Your task to perform on an android device: Open ESPN.com Image 0: 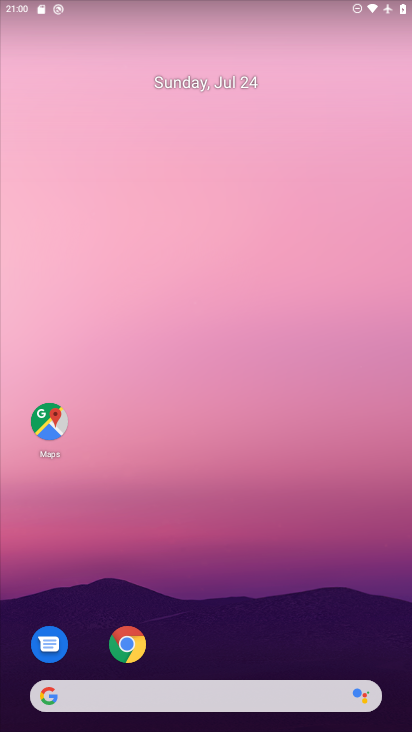
Step 0: click (124, 642)
Your task to perform on an android device: Open ESPN.com Image 1: 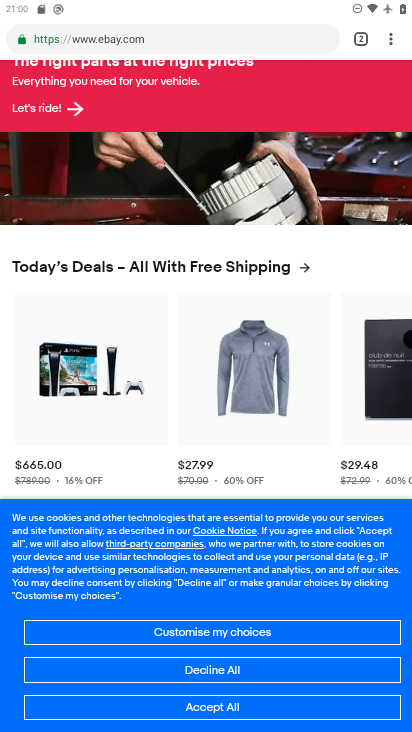
Step 1: click (176, 28)
Your task to perform on an android device: Open ESPN.com Image 2: 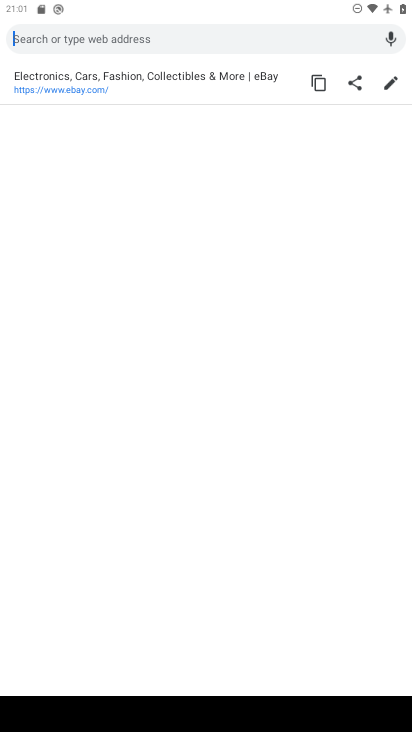
Step 2: type "ESPN.com"
Your task to perform on an android device: Open ESPN.com Image 3: 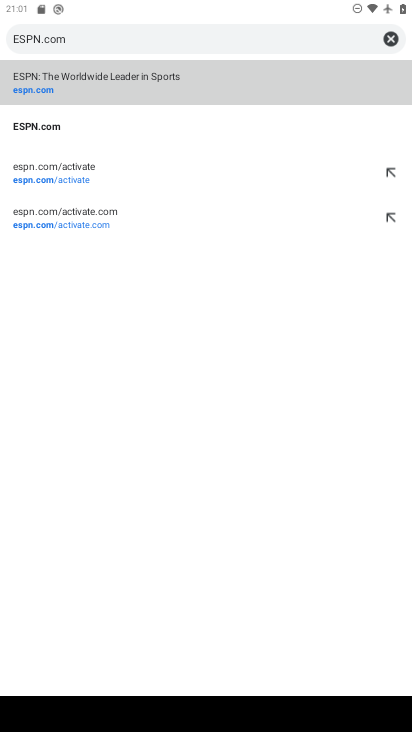
Step 3: click (49, 86)
Your task to perform on an android device: Open ESPN.com Image 4: 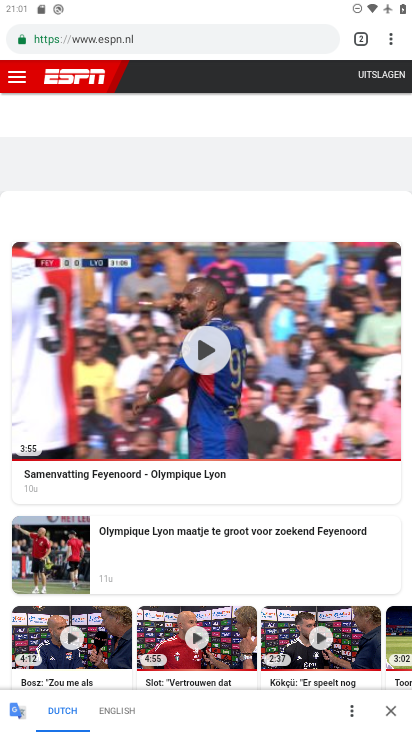
Step 4: drag from (257, 598) to (276, 154)
Your task to perform on an android device: Open ESPN.com Image 5: 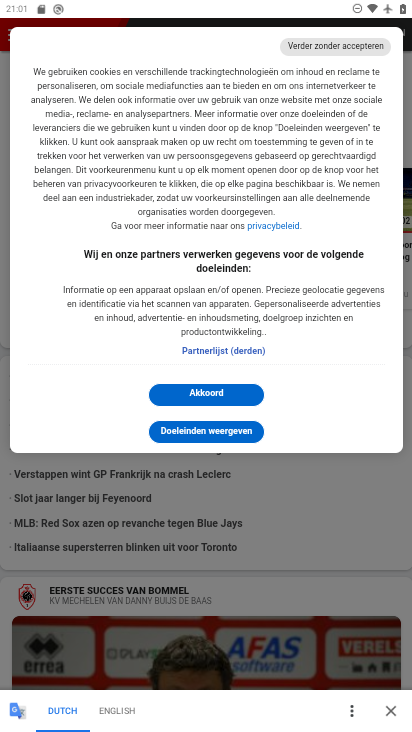
Step 5: click (202, 392)
Your task to perform on an android device: Open ESPN.com Image 6: 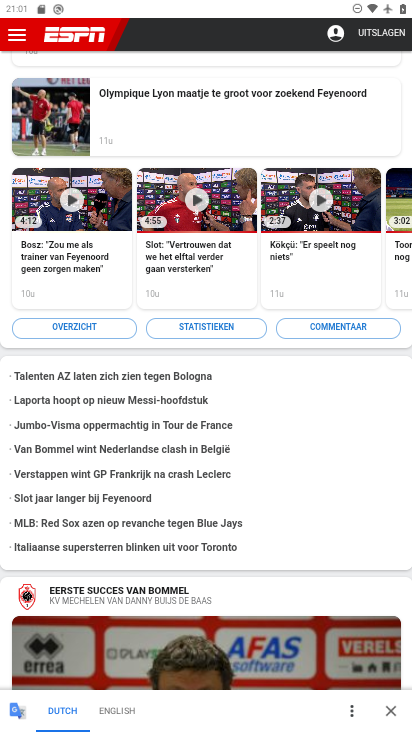
Step 6: task complete